Your task to perform on an android device: Open Google Image 0: 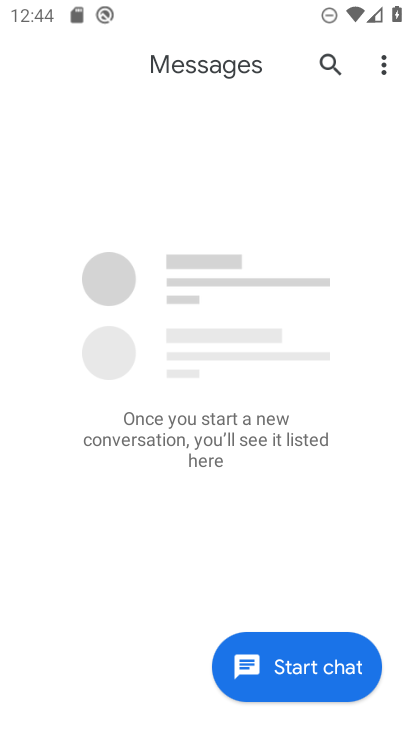
Step 0: press home button
Your task to perform on an android device: Open Google Image 1: 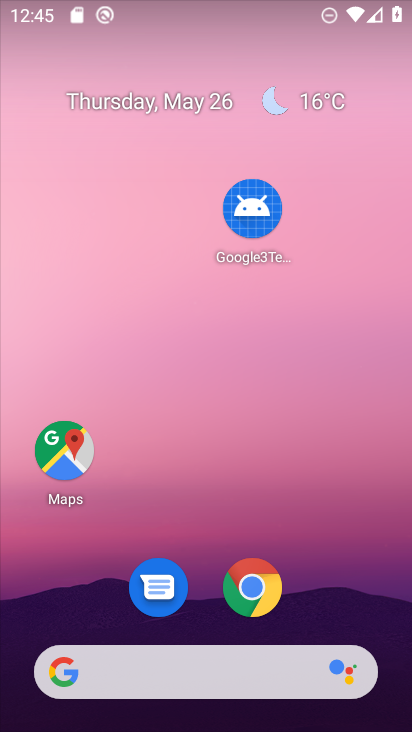
Step 1: drag from (203, 638) to (158, 418)
Your task to perform on an android device: Open Google Image 2: 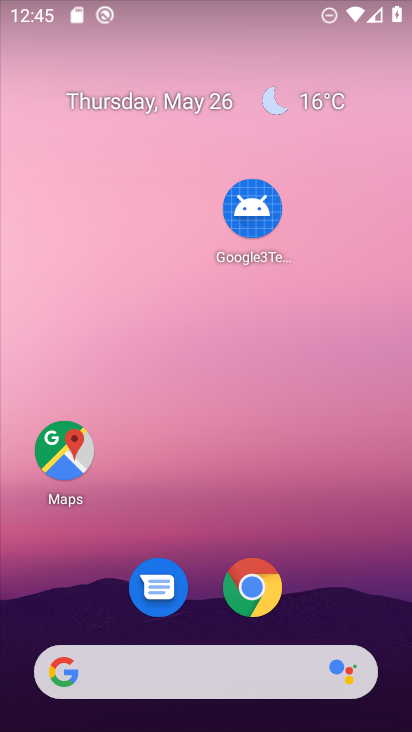
Step 2: drag from (182, 650) to (257, 381)
Your task to perform on an android device: Open Google Image 3: 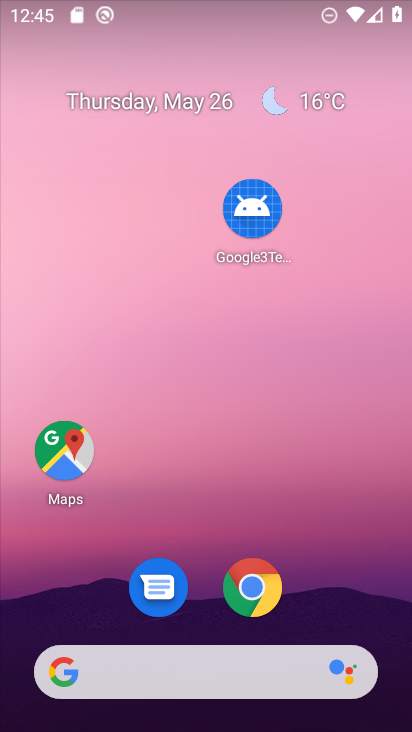
Step 3: drag from (224, 650) to (147, 48)
Your task to perform on an android device: Open Google Image 4: 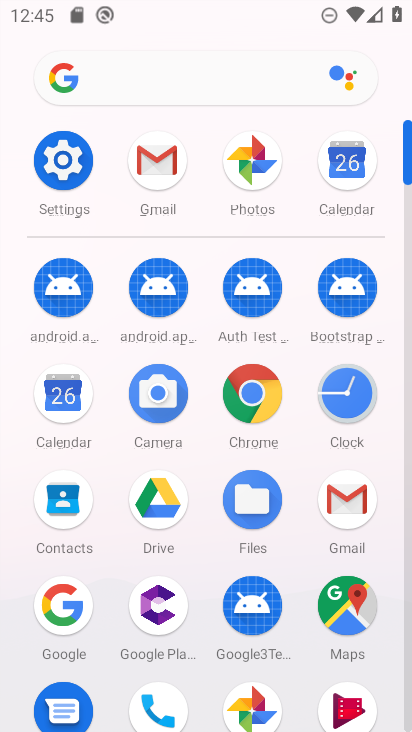
Step 4: click (83, 616)
Your task to perform on an android device: Open Google Image 5: 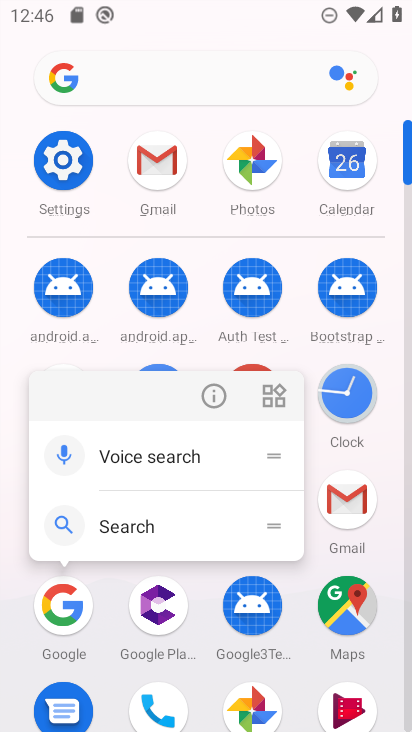
Step 5: click (56, 626)
Your task to perform on an android device: Open Google Image 6: 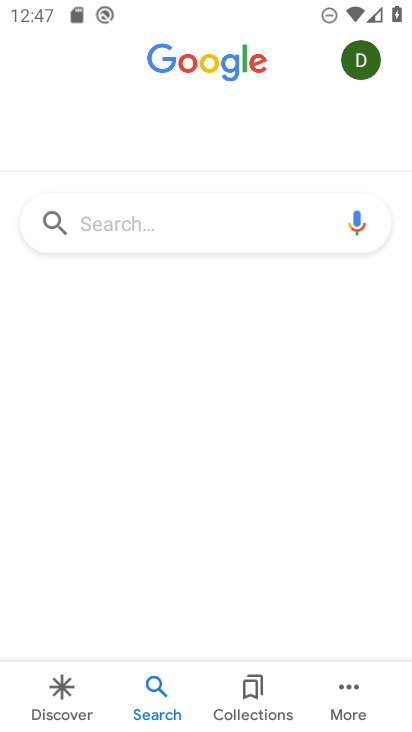
Step 6: task complete